Your task to perform on an android device: turn on the 24-hour format for clock Image 0: 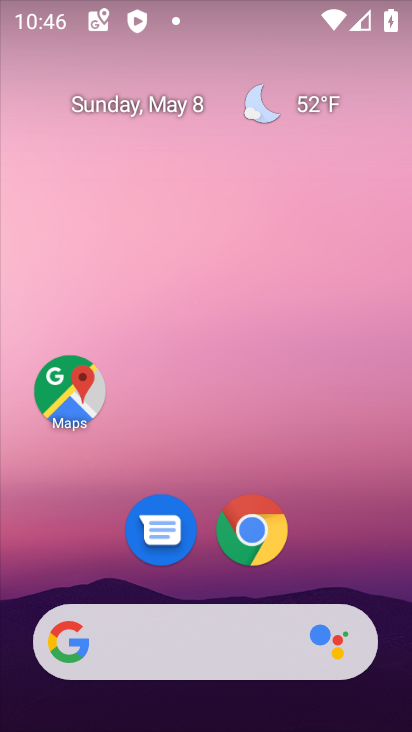
Step 0: drag from (342, 560) to (360, 81)
Your task to perform on an android device: turn on the 24-hour format for clock Image 1: 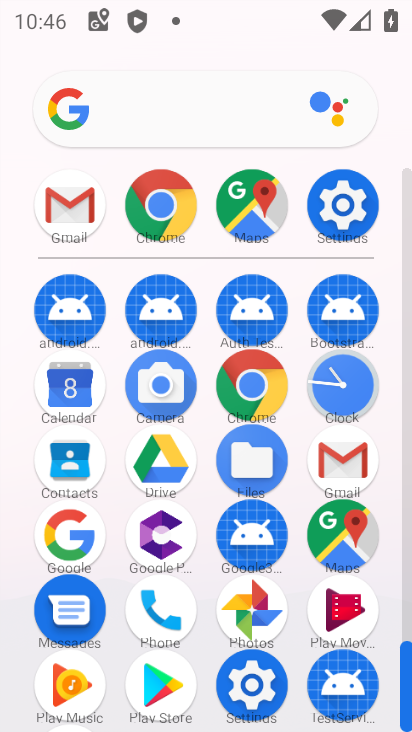
Step 1: click (332, 387)
Your task to perform on an android device: turn on the 24-hour format for clock Image 2: 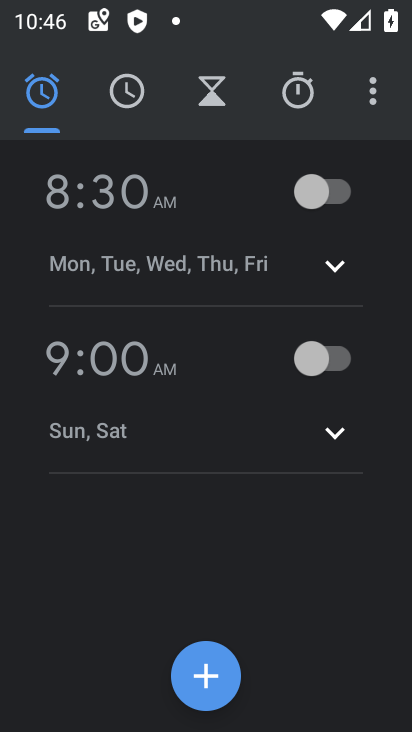
Step 2: click (384, 107)
Your task to perform on an android device: turn on the 24-hour format for clock Image 3: 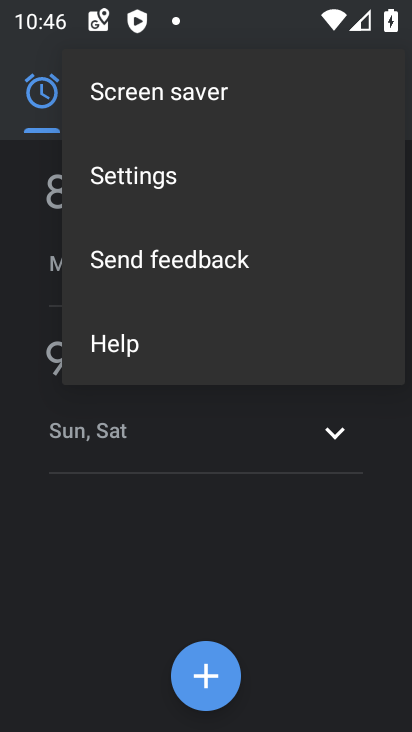
Step 3: click (248, 169)
Your task to perform on an android device: turn on the 24-hour format for clock Image 4: 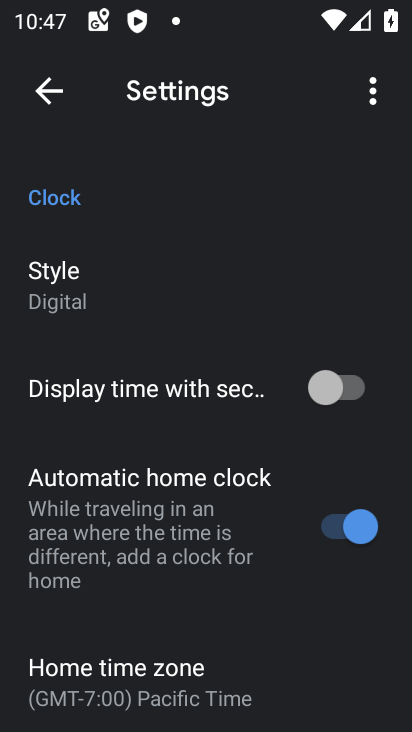
Step 4: drag from (256, 598) to (275, 257)
Your task to perform on an android device: turn on the 24-hour format for clock Image 5: 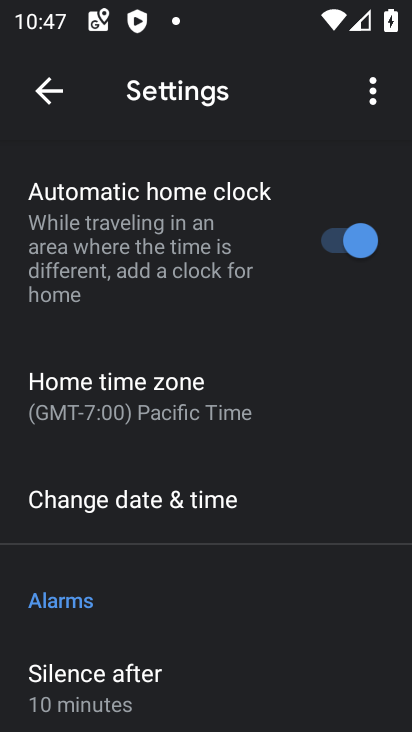
Step 5: click (293, 488)
Your task to perform on an android device: turn on the 24-hour format for clock Image 6: 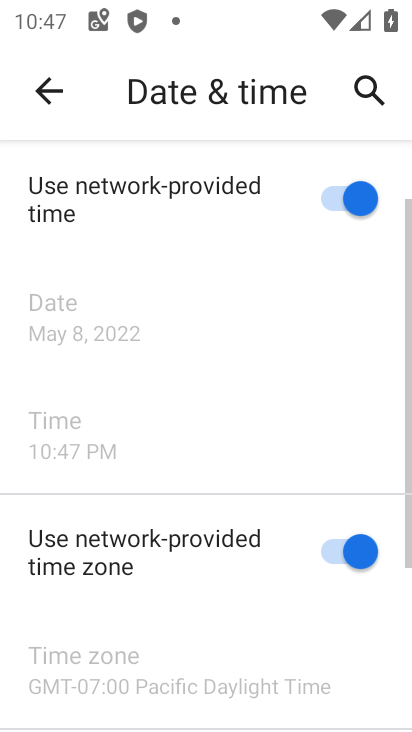
Step 6: drag from (249, 581) to (252, 171)
Your task to perform on an android device: turn on the 24-hour format for clock Image 7: 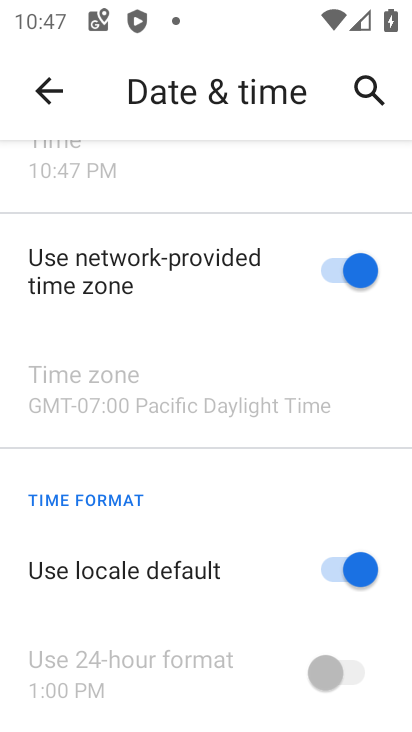
Step 7: click (373, 552)
Your task to perform on an android device: turn on the 24-hour format for clock Image 8: 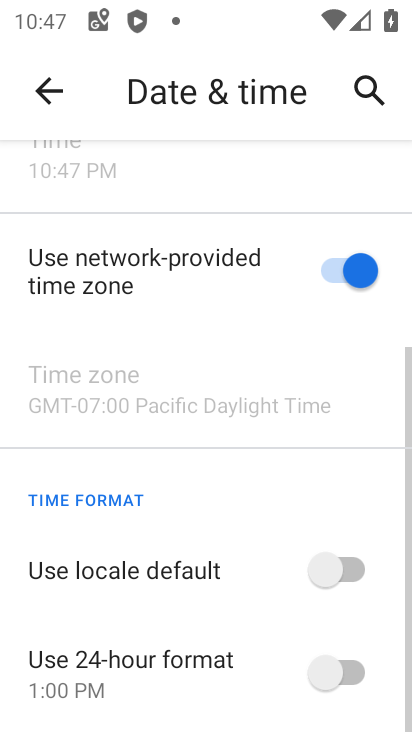
Step 8: click (361, 685)
Your task to perform on an android device: turn on the 24-hour format for clock Image 9: 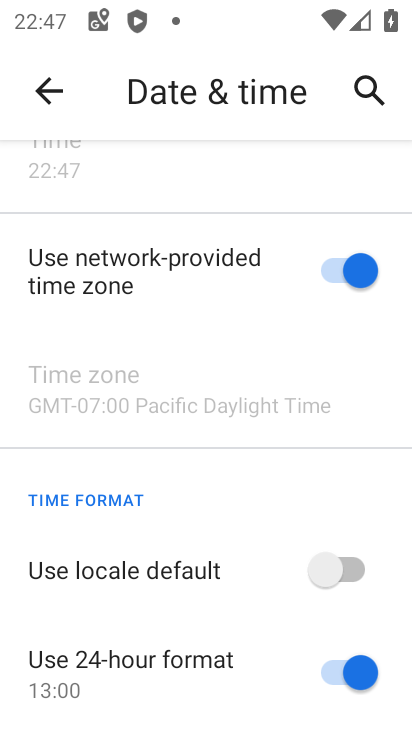
Step 9: task complete